Your task to perform on an android device: empty trash in google photos Image 0: 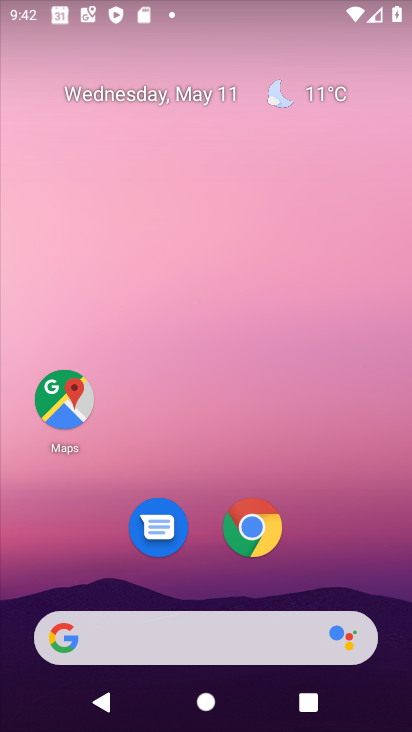
Step 0: drag from (392, 533) to (334, 224)
Your task to perform on an android device: empty trash in google photos Image 1: 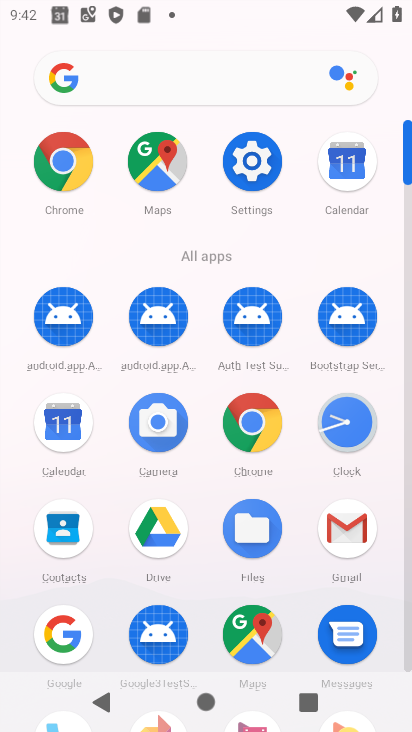
Step 1: drag from (379, 671) to (311, 233)
Your task to perform on an android device: empty trash in google photos Image 2: 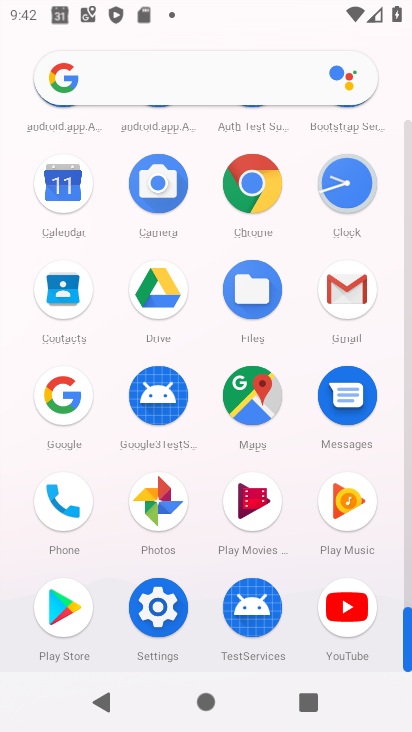
Step 2: click (169, 508)
Your task to perform on an android device: empty trash in google photos Image 3: 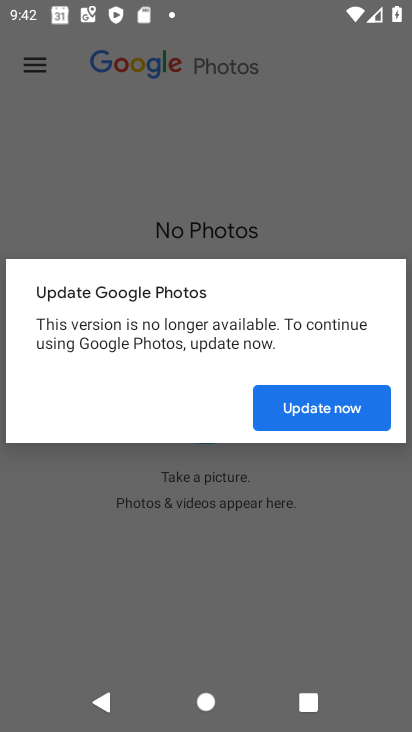
Step 3: click (339, 405)
Your task to perform on an android device: empty trash in google photos Image 4: 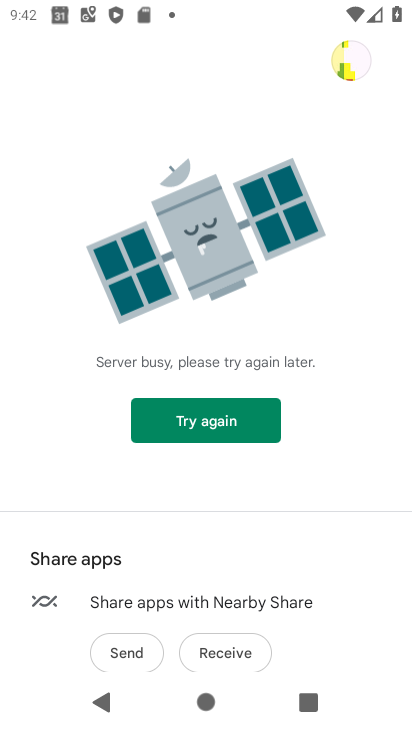
Step 4: click (245, 414)
Your task to perform on an android device: empty trash in google photos Image 5: 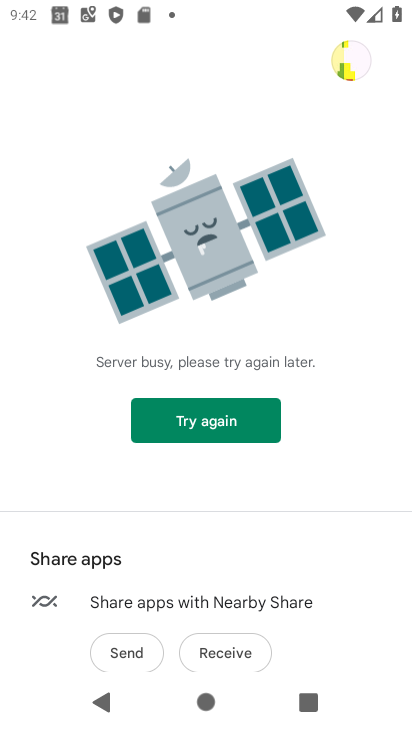
Step 5: click (250, 434)
Your task to perform on an android device: empty trash in google photos Image 6: 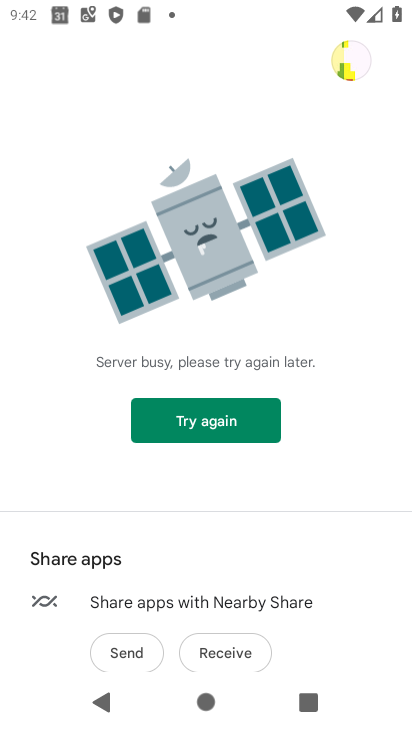
Step 6: click (250, 434)
Your task to perform on an android device: empty trash in google photos Image 7: 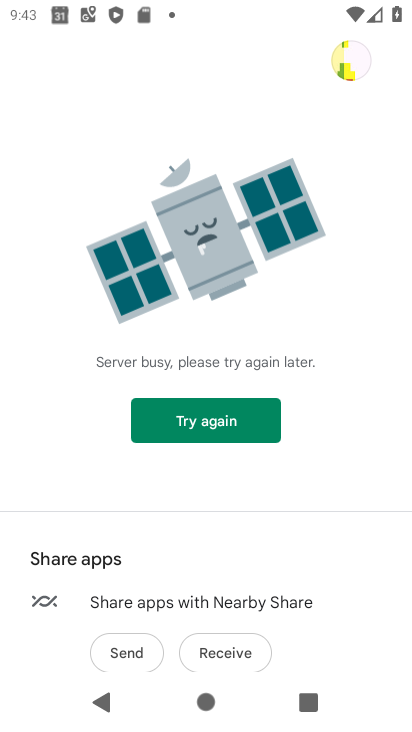
Step 7: task complete